Your task to perform on an android device: turn on the 24-hour format for clock Image 0: 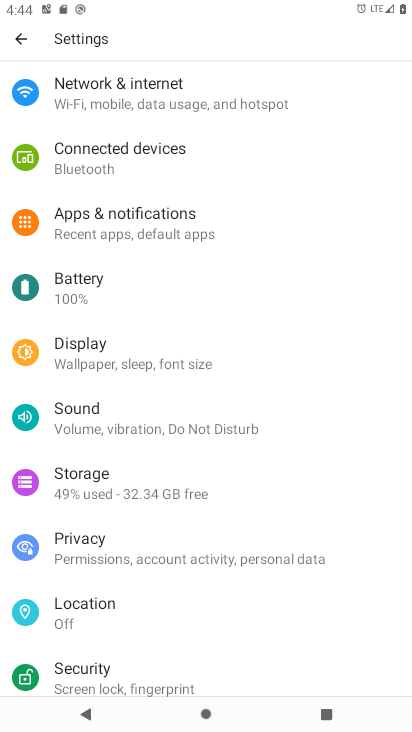
Step 0: press home button
Your task to perform on an android device: turn on the 24-hour format for clock Image 1: 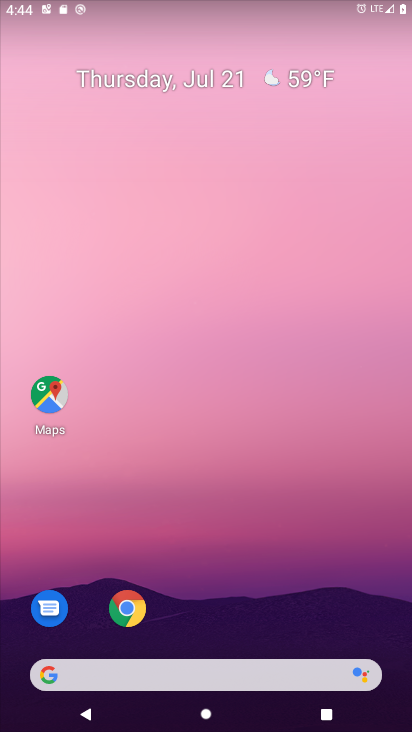
Step 1: drag from (229, 703) to (355, 16)
Your task to perform on an android device: turn on the 24-hour format for clock Image 2: 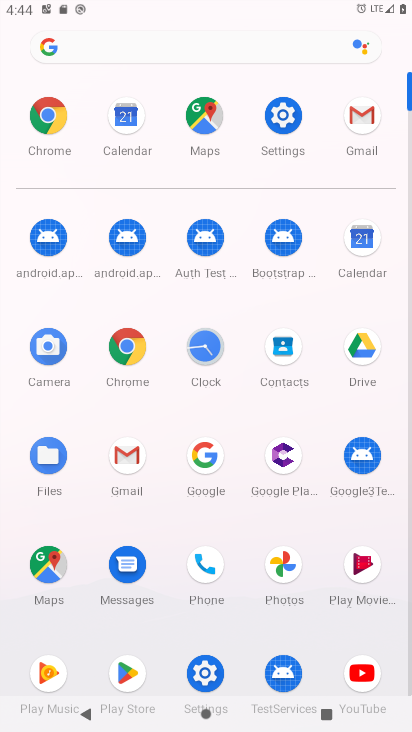
Step 2: click (209, 339)
Your task to perform on an android device: turn on the 24-hour format for clock Image 3: 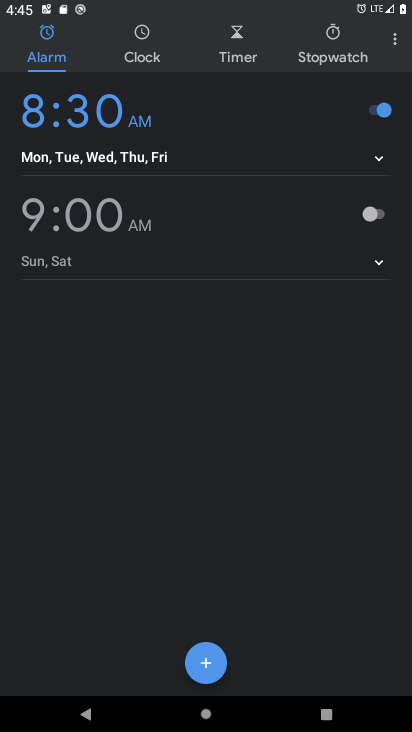
Step 3: drag from (397, 38) to (334, 88)
Your task to perform on an android device: turn on the 24-hour format for clock Image 4: 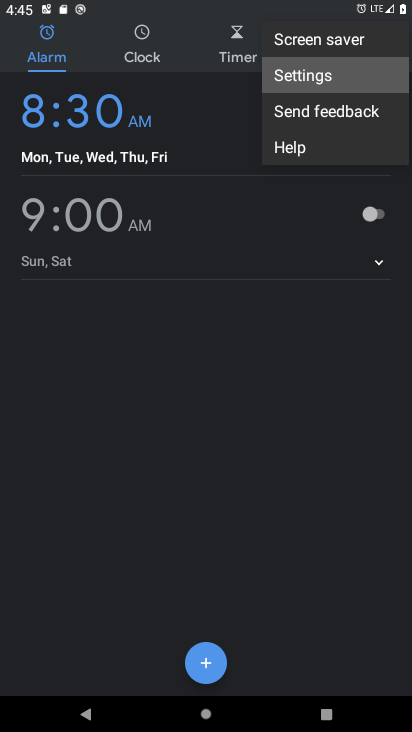
Step 4: click (334, 88)
Your task to perform on an android device: turn on the 24-hour format for clock Image 5: 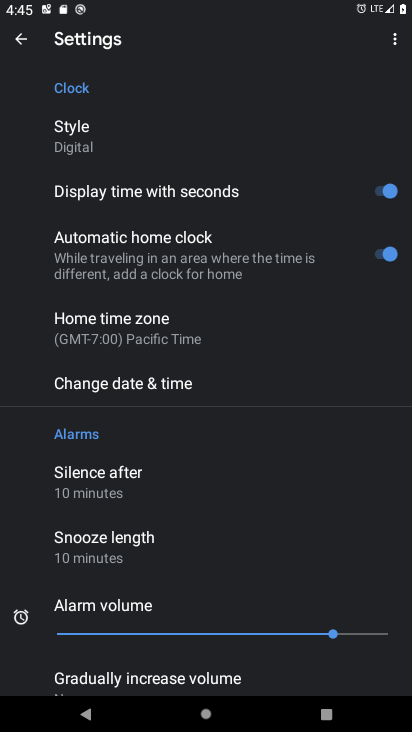
Step 5: click (128, 380)
Your task to perform on an android device: turn on the 24-hour format for clock Image 6: 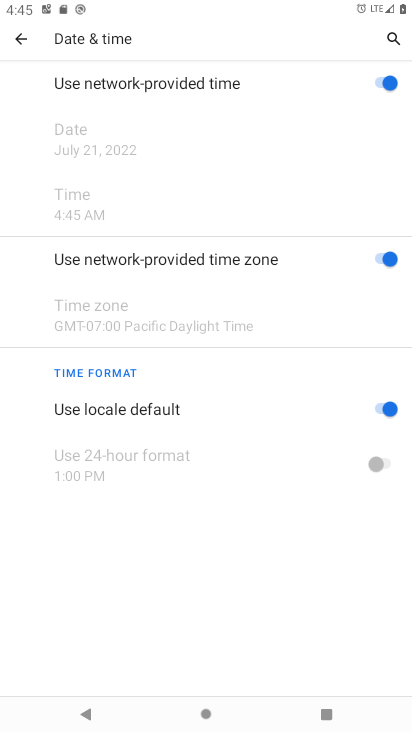
Step 6: click (373, 405)
Your task to perform on an android device: turn on the 24-hour format for clock Image 7: 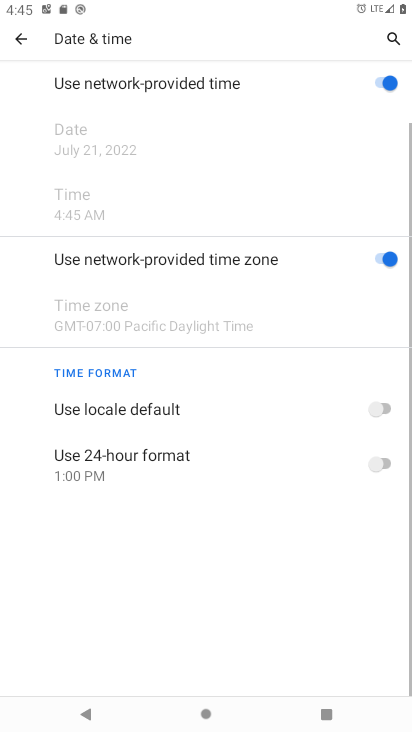
Step 7: click (377, 462)
Your task to perform on an android device: turn on the 24-hour format for clock Image 8: 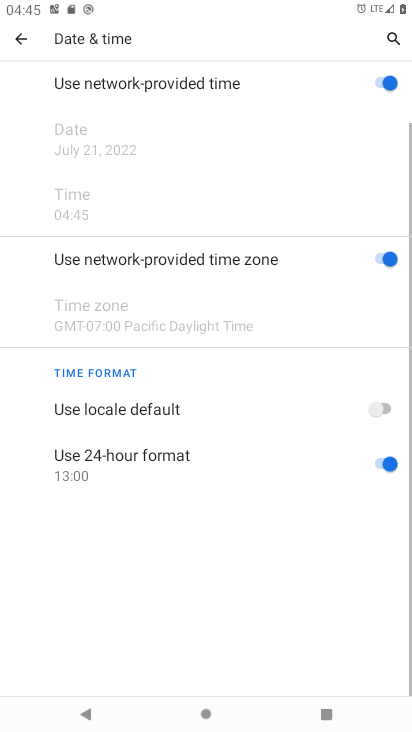
Step 8: task complete